Your task to perform on an android device: Open Youtube and go to the subscriptions tab Image 0: 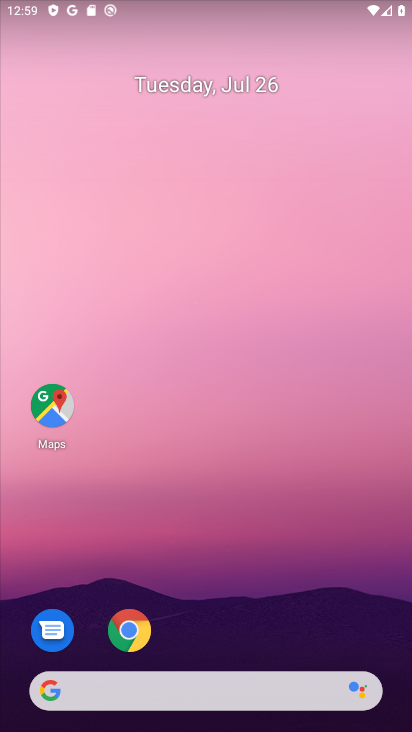
Step 0: drag from (240, 627) to (267, 0)
Your task to perform on an android device: Open Youtube and go to the subscriptions tab Image 1: 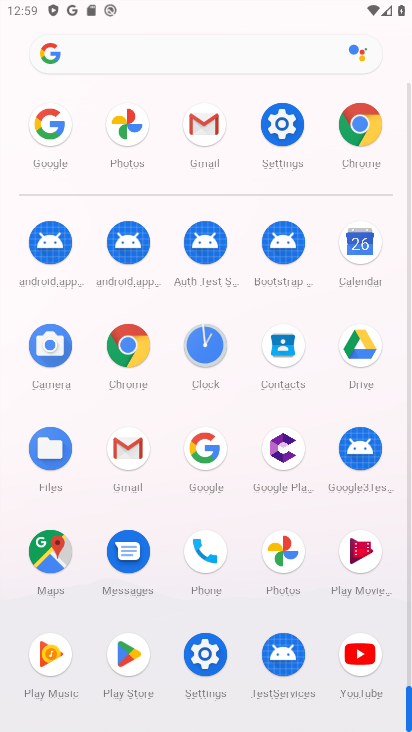
Step 1: click (371, 672)
Your task to perform on an android device: Open Youtube and go to the subscriptions tab Image 2: 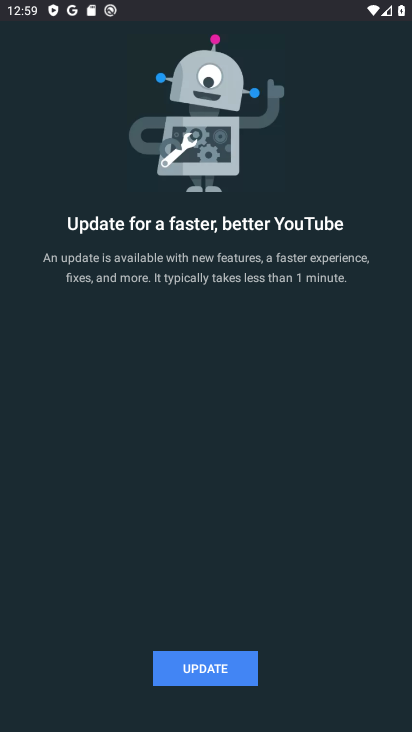
Step 2: click (202, 676)
Your task to perform on an android device: Open Youtube and go to the subscriptions tab Image 3: 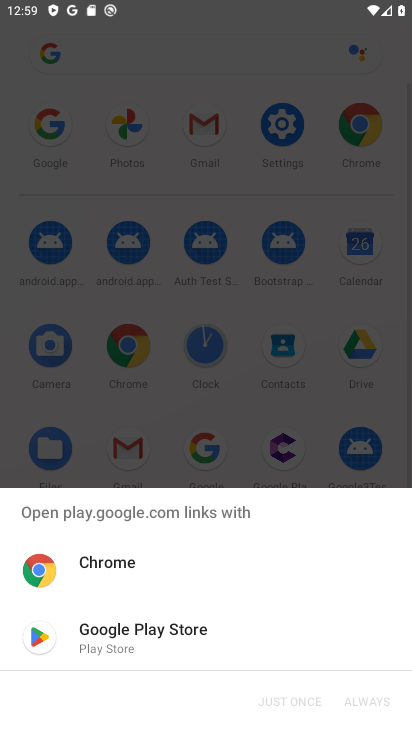
Step 3: click (153, 644)
Your task to perform on an android device: Open Youtube and go to the subscriptions tab Image 4: 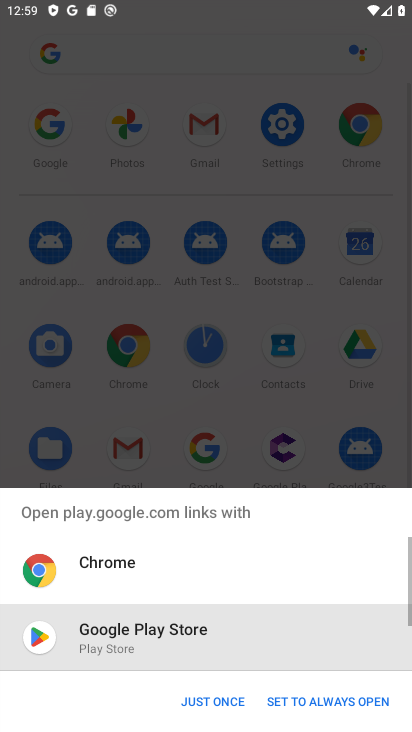
Step 4: click (217, 697)
Your task to perform on an android device: Open Youtube and go to the subscriptions tab Image 5: 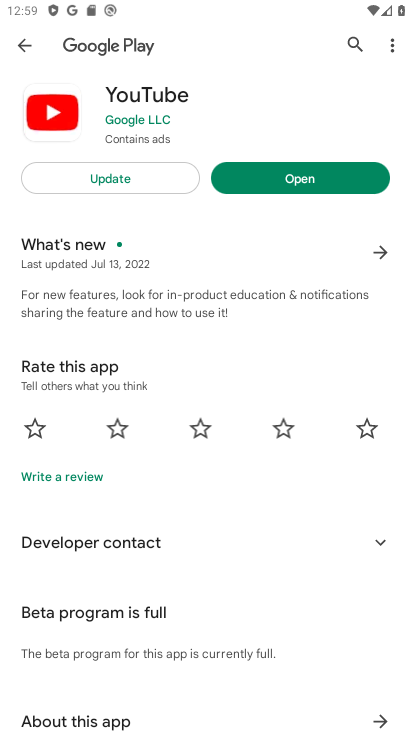
Step 5: click (95, 188)
Your task to perform on an android device: Open Youtube and go to the subscriptions tab Image 6: 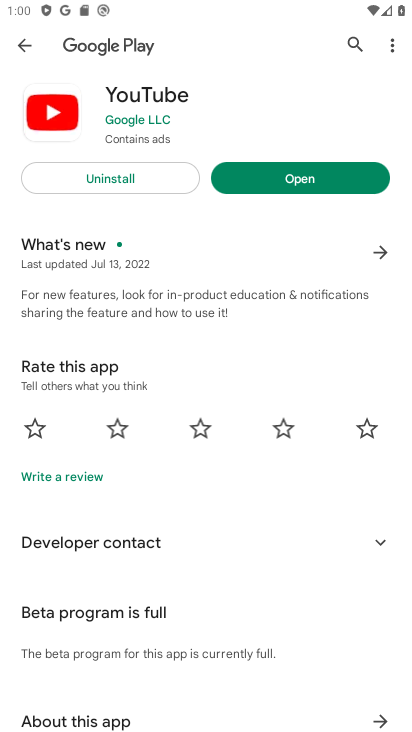
Step 6: click (331, 182)
Your task to perform on an android device: Open Youtube and go to the subscriptions tab Image 7: 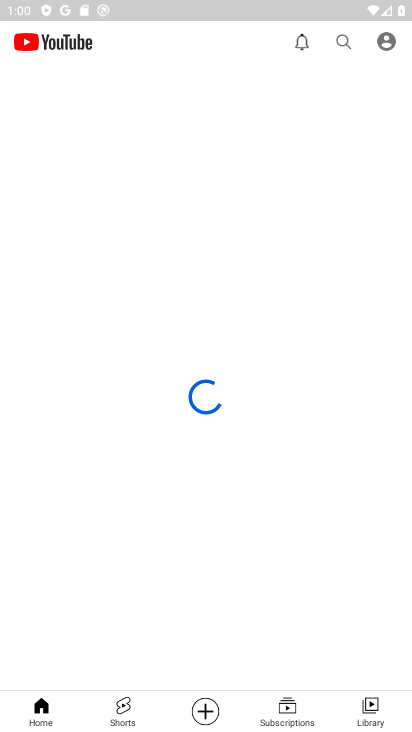
Step 7: click (262, 709)
Your task to perform on an android device: Open Youtube and go to the subscriptions tab Image 8: 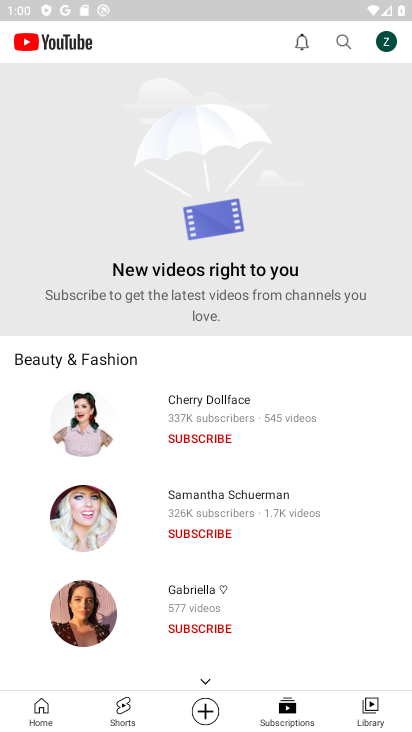
Step 8: task complete